Your task to perform on an android device: turn notification dots off Image 0: 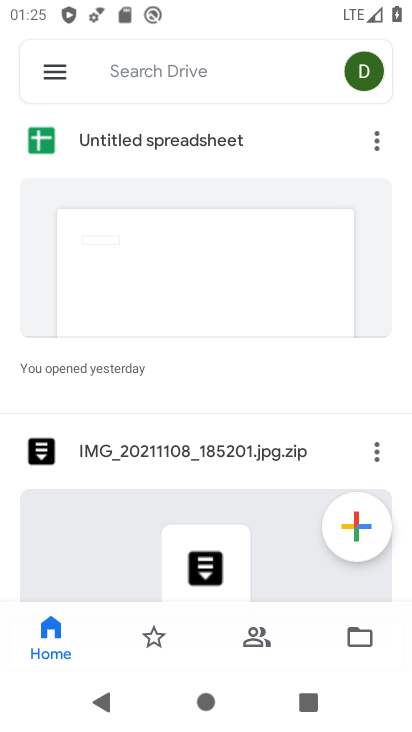
Step 0: press home button
Your task to perform on an android device: turn notification dots off Image 1: 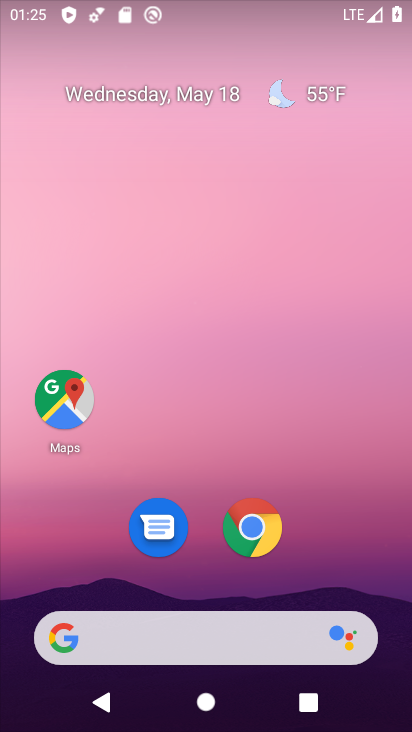
Step 1: drag from (333, 543) to (207, 45)
Your task to perform on an android device: turn notification dots off Image 2: 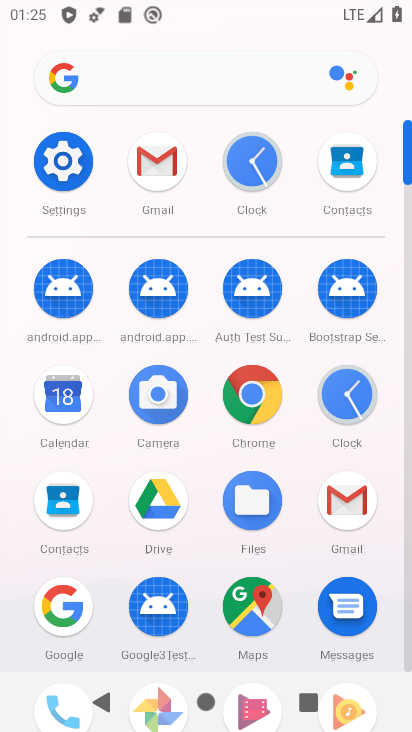
Step 2: click (70, 163)
Your task to perform on an android device: turn notification dots off Image 3: 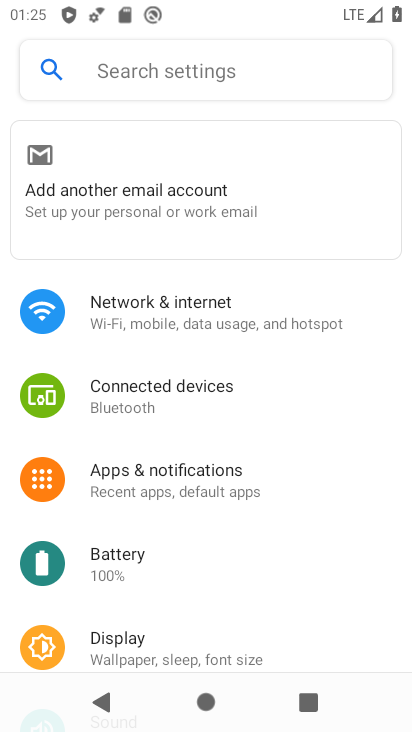
Step 3: click (206, 457)
Your task to perform on an android device: turn notification dots off Image 4: 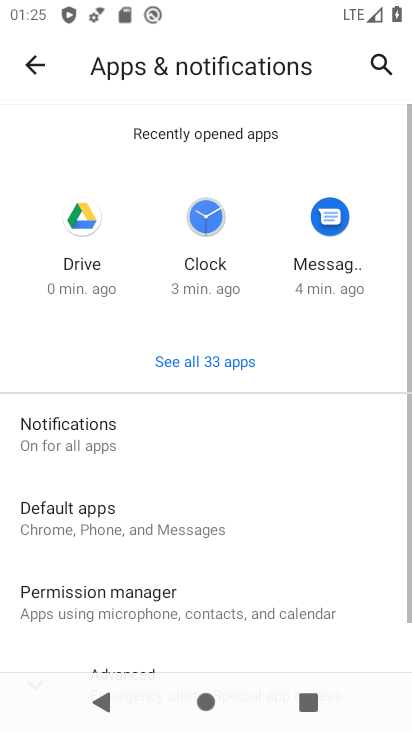
Step 4: click (168, 426)
Your task to perform on an android device: turn notification dots off Image 5: 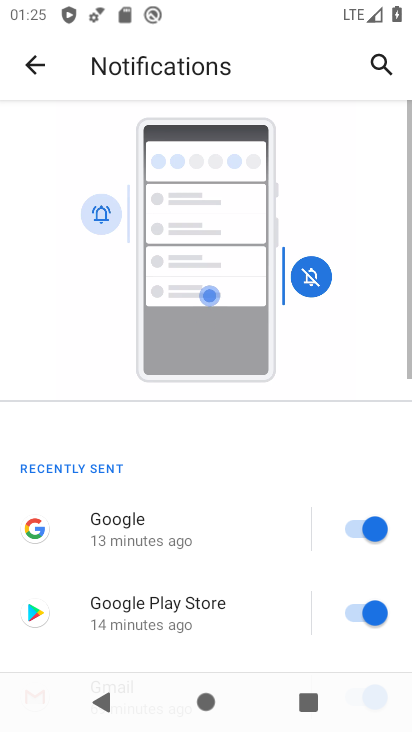
Step 5: drag from (269, 600) to (203, 35)
Your task to perform on an android device: turn notification dots off Image 6: 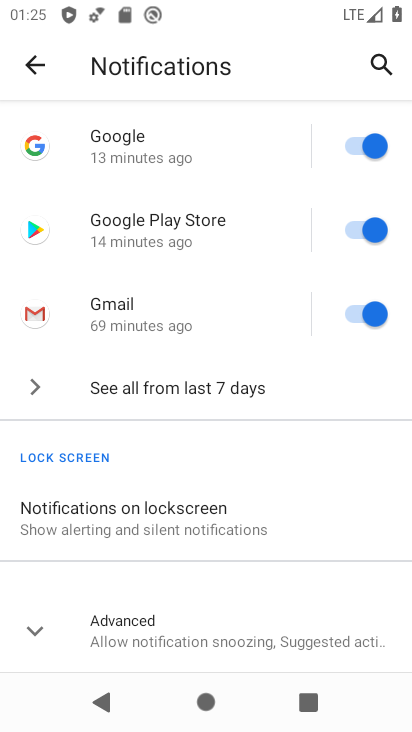
Step 6: click (207, 615)
Your task to perform on an android device: turn notification dots off Image 7: 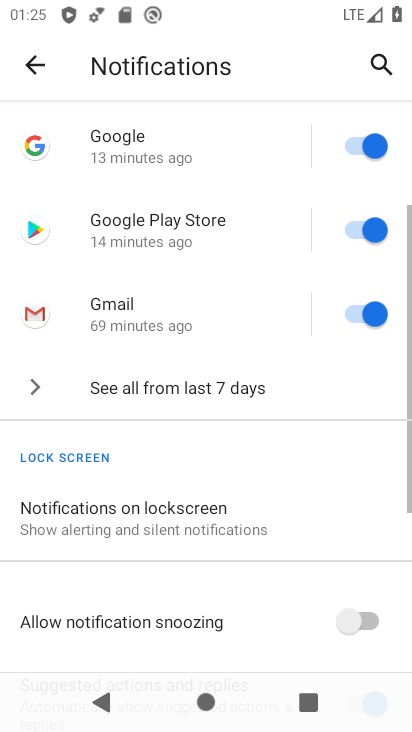
Step 7: drag from (253, 624) to (216, 129)
Your task to perform on an android device: turn notification dots off Image 8: 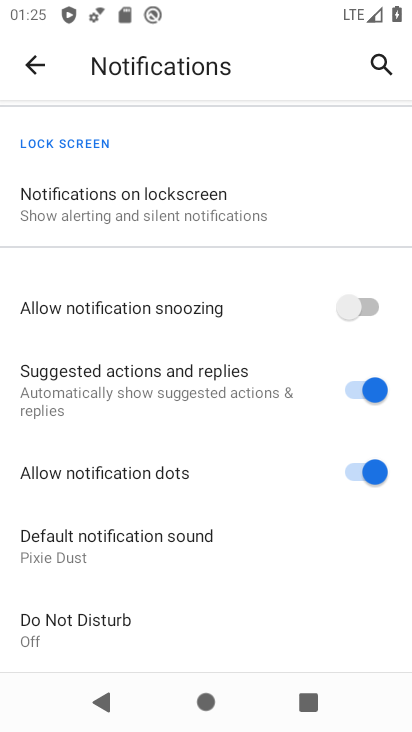
Step 8: click (371, 476)
Your task to perform on an android device: turn notification dots off Image 9: 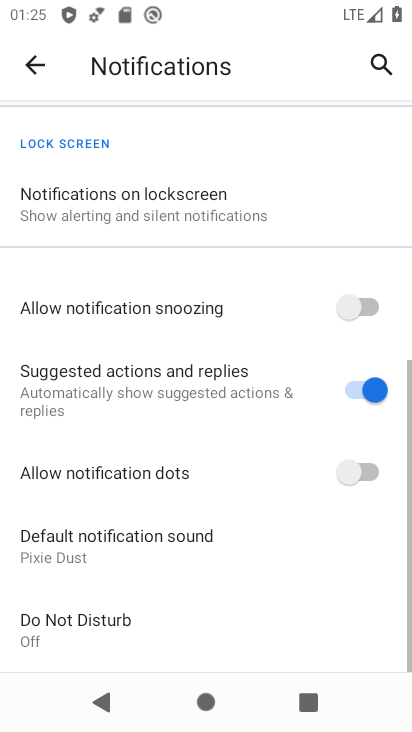
Step 9: task complete